Your task to perform on an android device: search for starred emails in the gmail app Image 0: 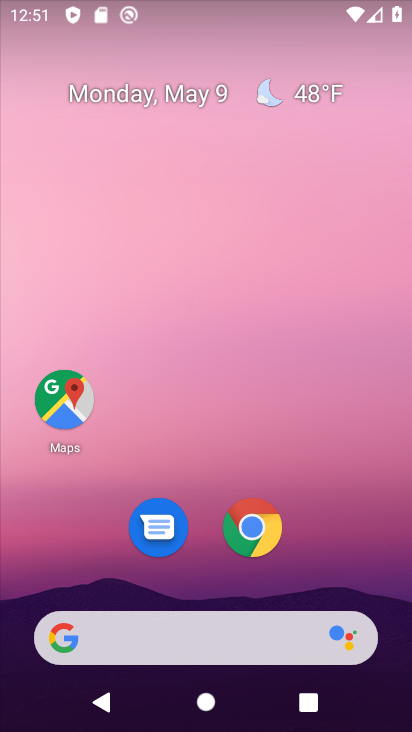
Step 0: drag from (255, 592) to (282, 38)
Your task to perform on an android device: search for starred emails in the gmail app Image 1: 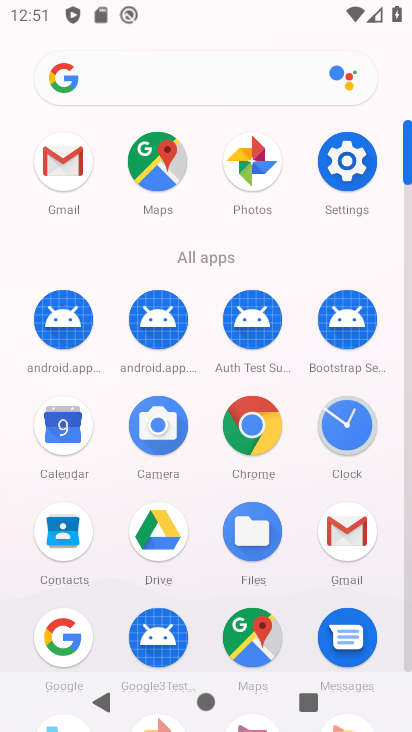
Step 1: click (357, 524)
Your task to perform on an android device: search for starred emails in the gmail app Image 2: 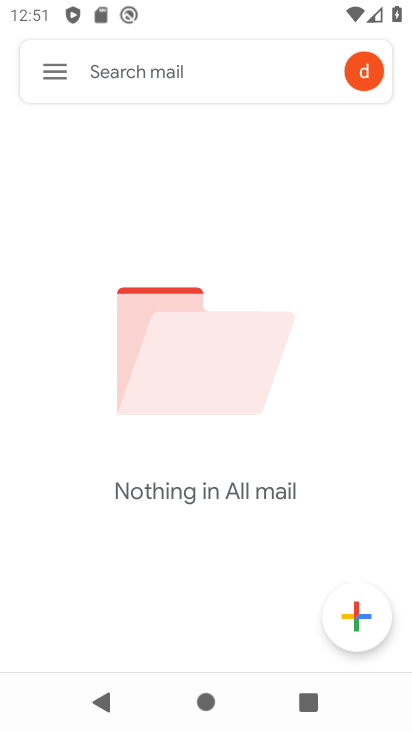
Step 2: click (56, 68)
Your task to perform on an android device: search for starred emails in the gmail app Image 3: 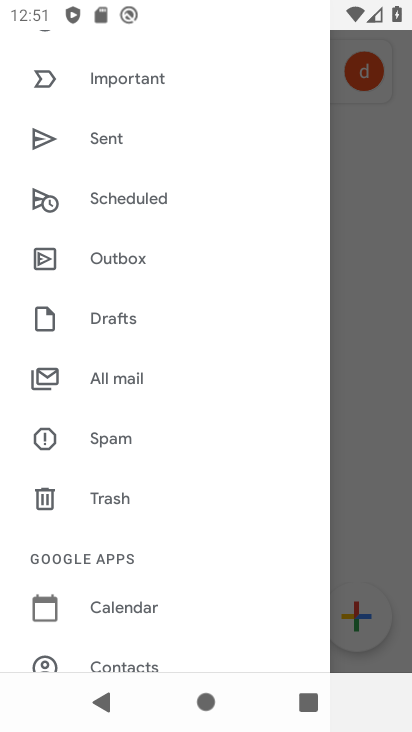
Step 3: drag from (135, 585) to (190, 720)
Your task to perform on an android device: search for starred emails in the gmail app Image 4: 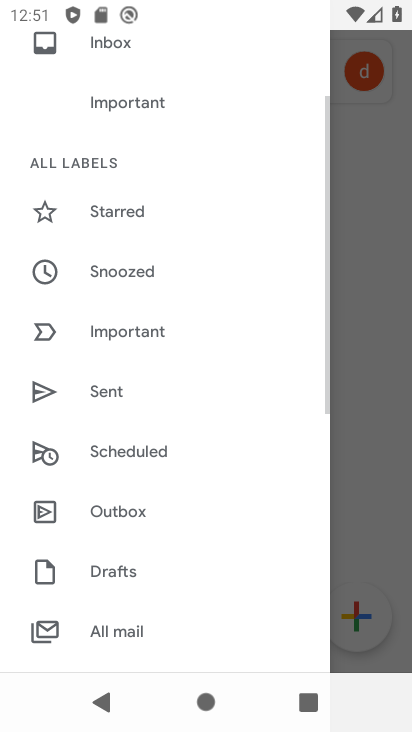
Step 4: drag from (156, 264) to (166, 607)
Your task to perform on an android device: search for starred emails in the gmail app Image 5: 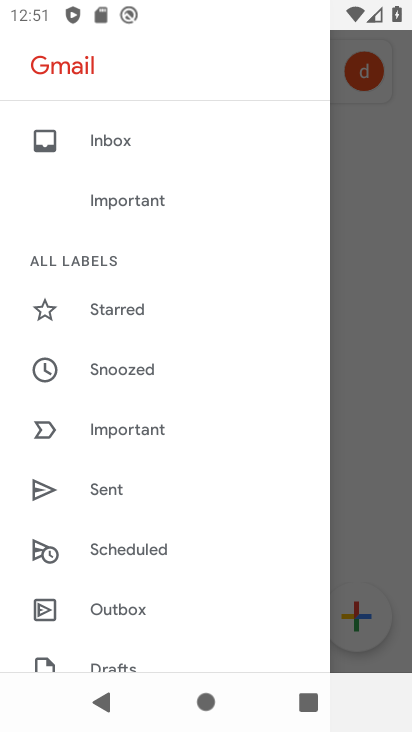
Step 5: click (136, 303)
Your task to perform on an android device: search for starred emails in the gmail app Image 6: 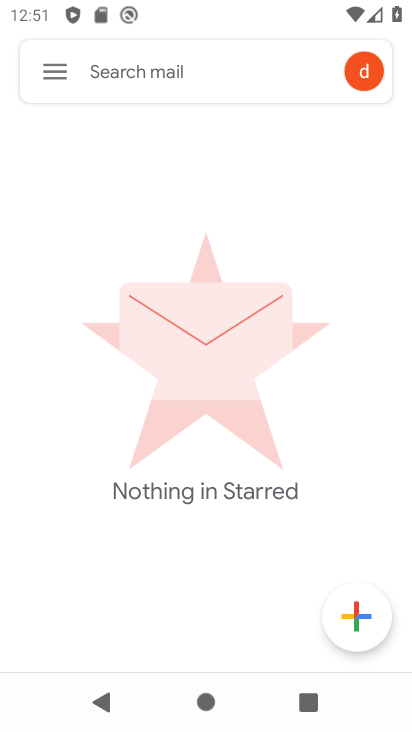
Step 6: task complete